Your task to perform on an android device: Search for sushi restaurants on Maps Image 0: 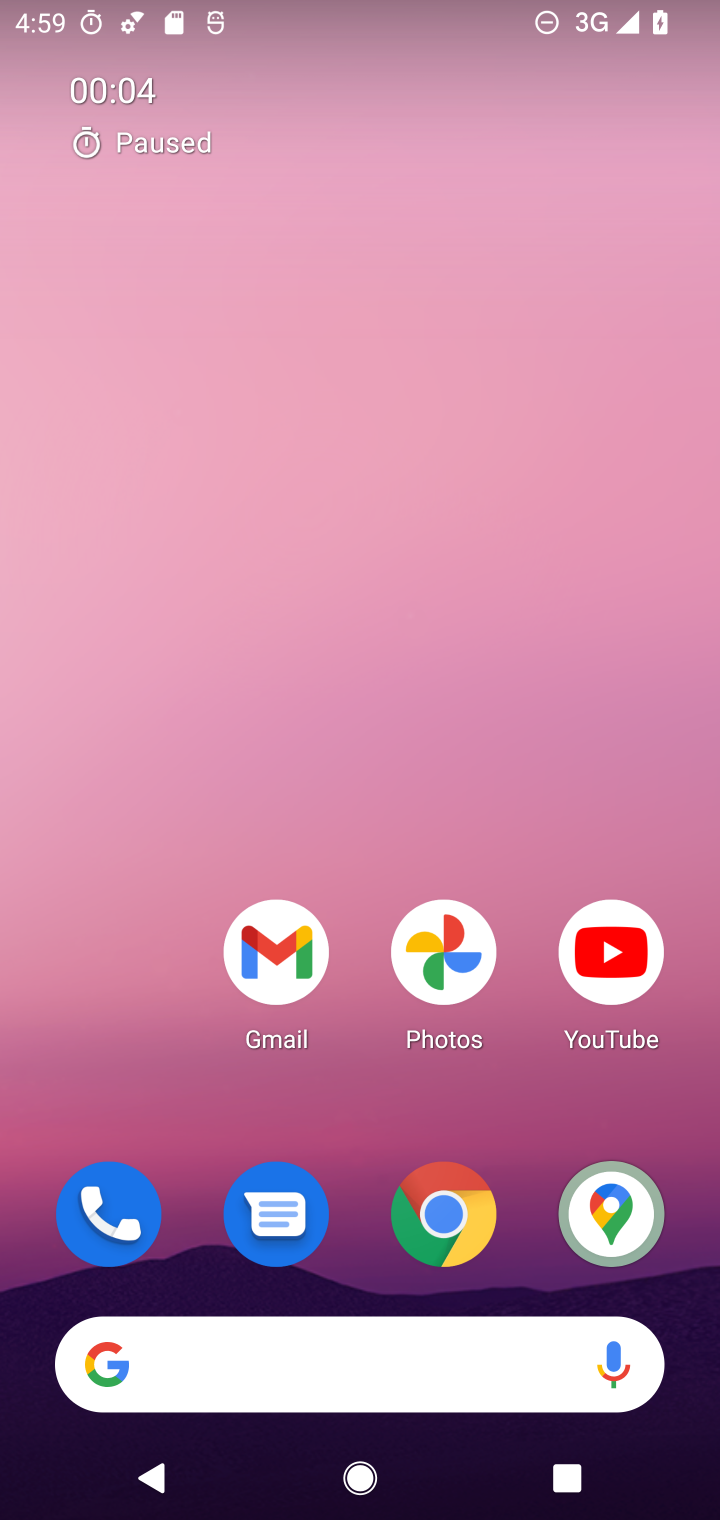
Step 0: click (618, 1218)
Your task to perform on an android device: Search for sushi restaurants on Maps Image 1: 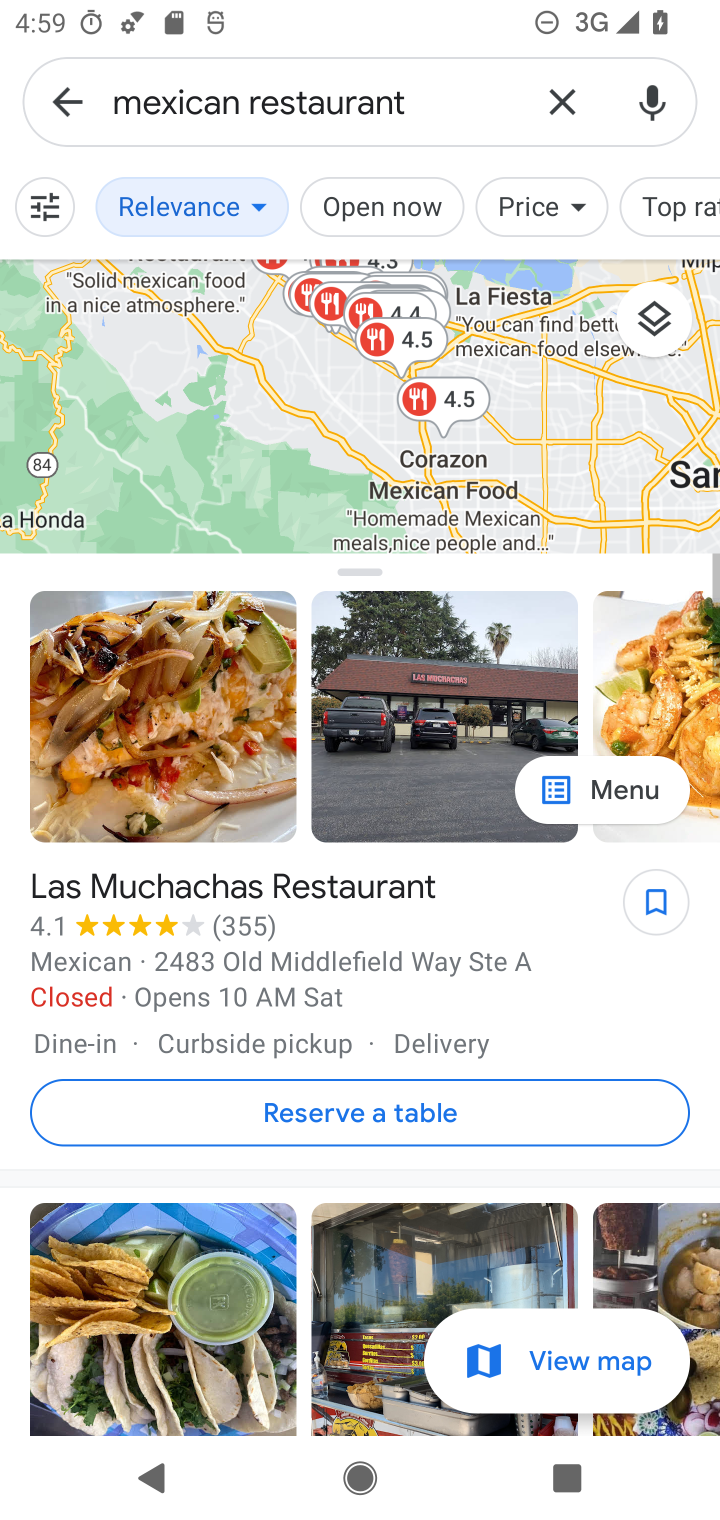
Step 1: click (56, 102)
Your task to perform on an android device: Search for sushi restaurants on Maps Image 2: 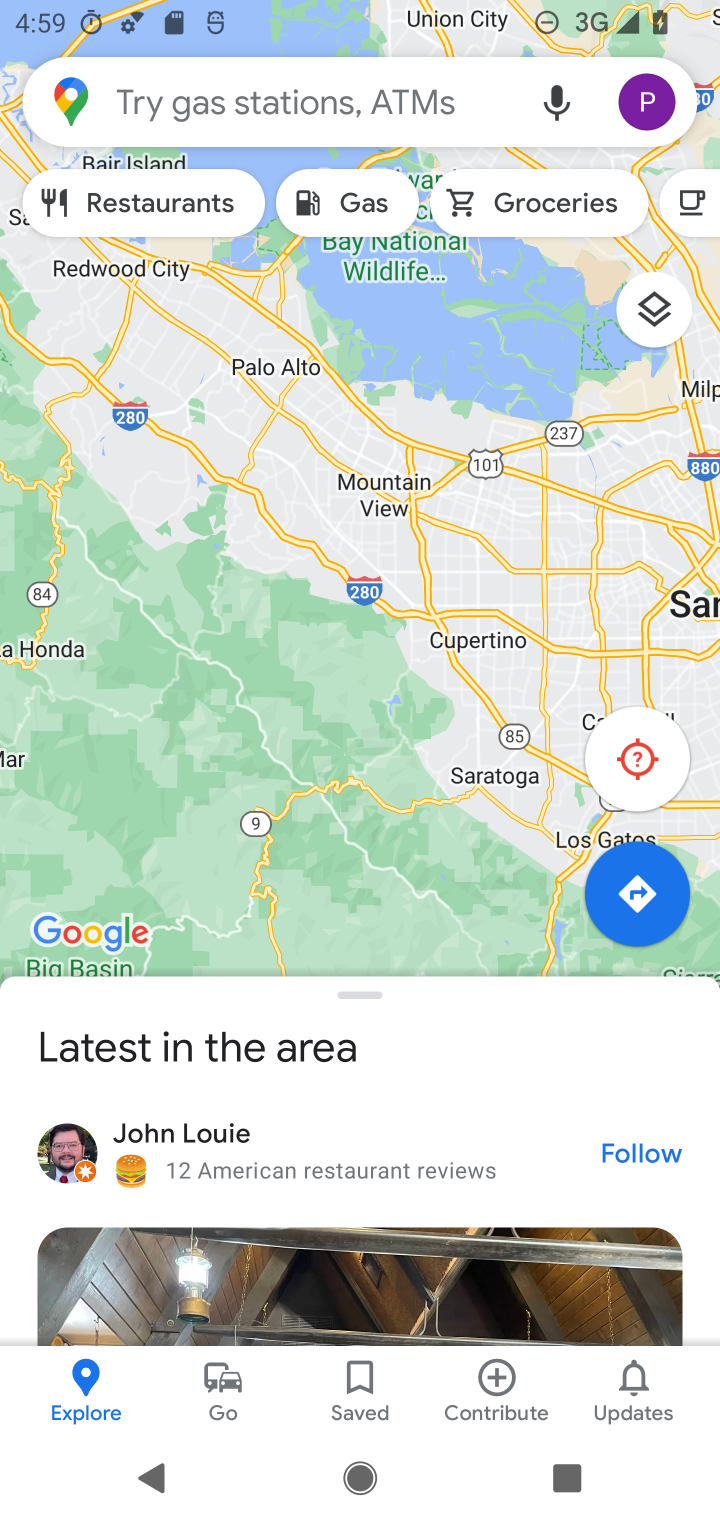
Step 2: click (254, 88)
Your task to perform on an android device: Search for sushi restaurants on Maps Image 3: 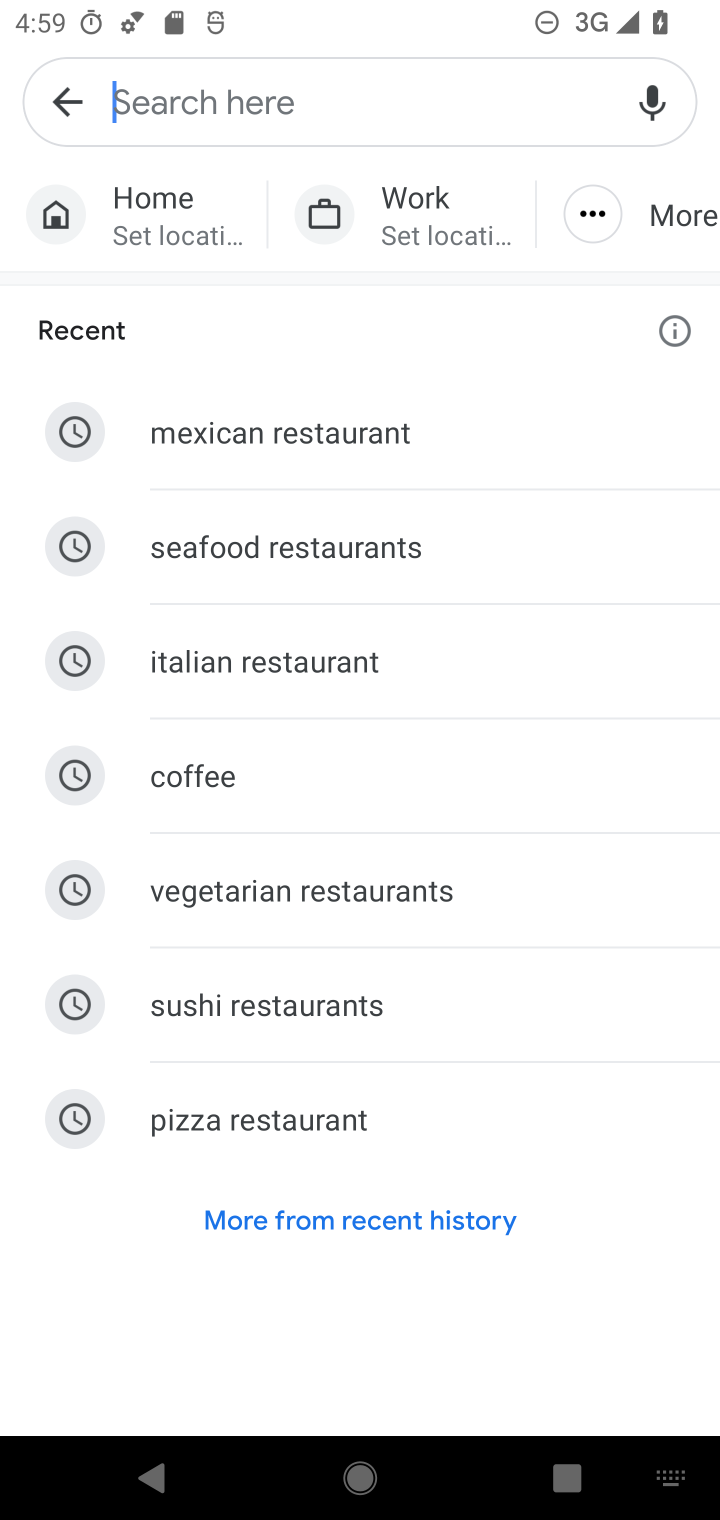
Step 3: type "sushi restaurants"
Your task to perform on an android device: Search for sushi restaurants on Maps Image 4: 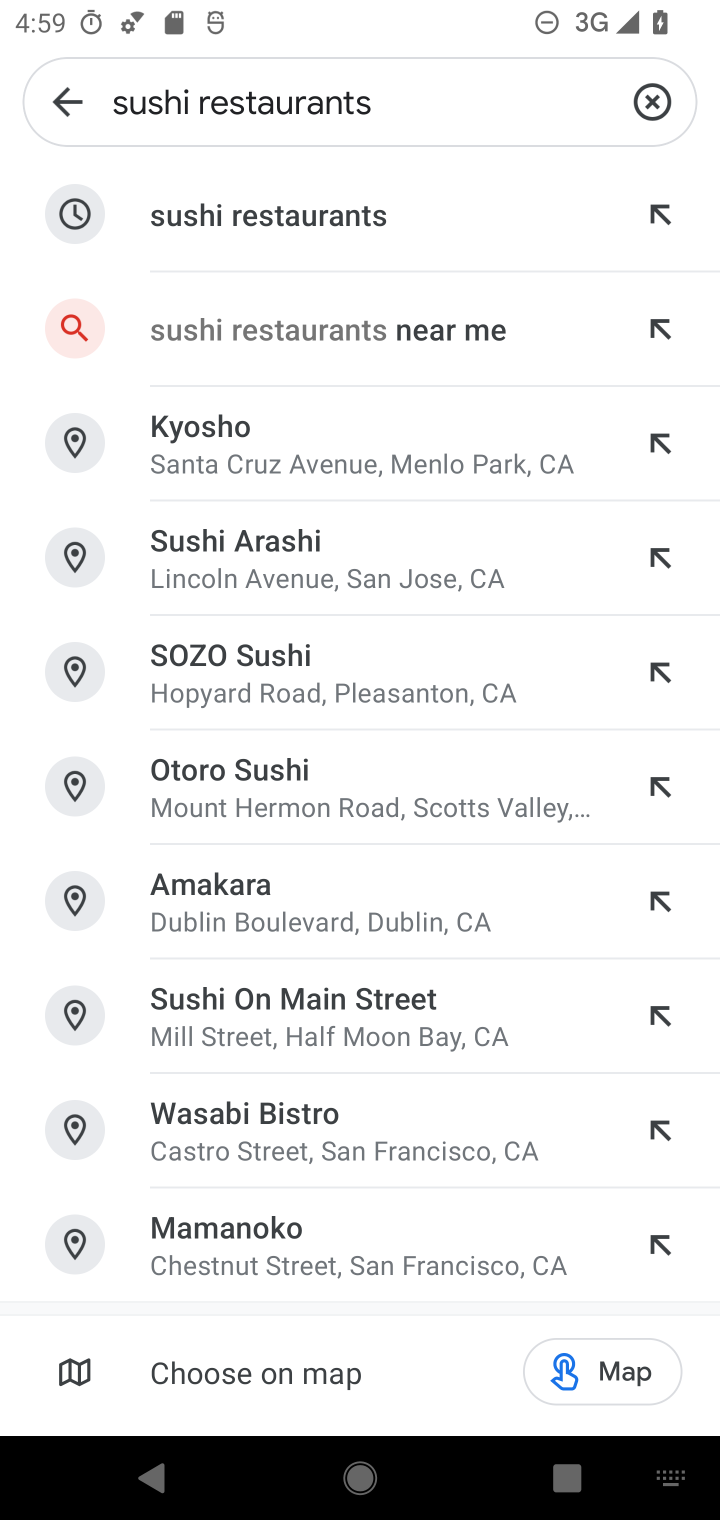
Step 4: click (315, 226)
Your task to perform on an android device: Search for sushi restaurants on Maps Image 5: 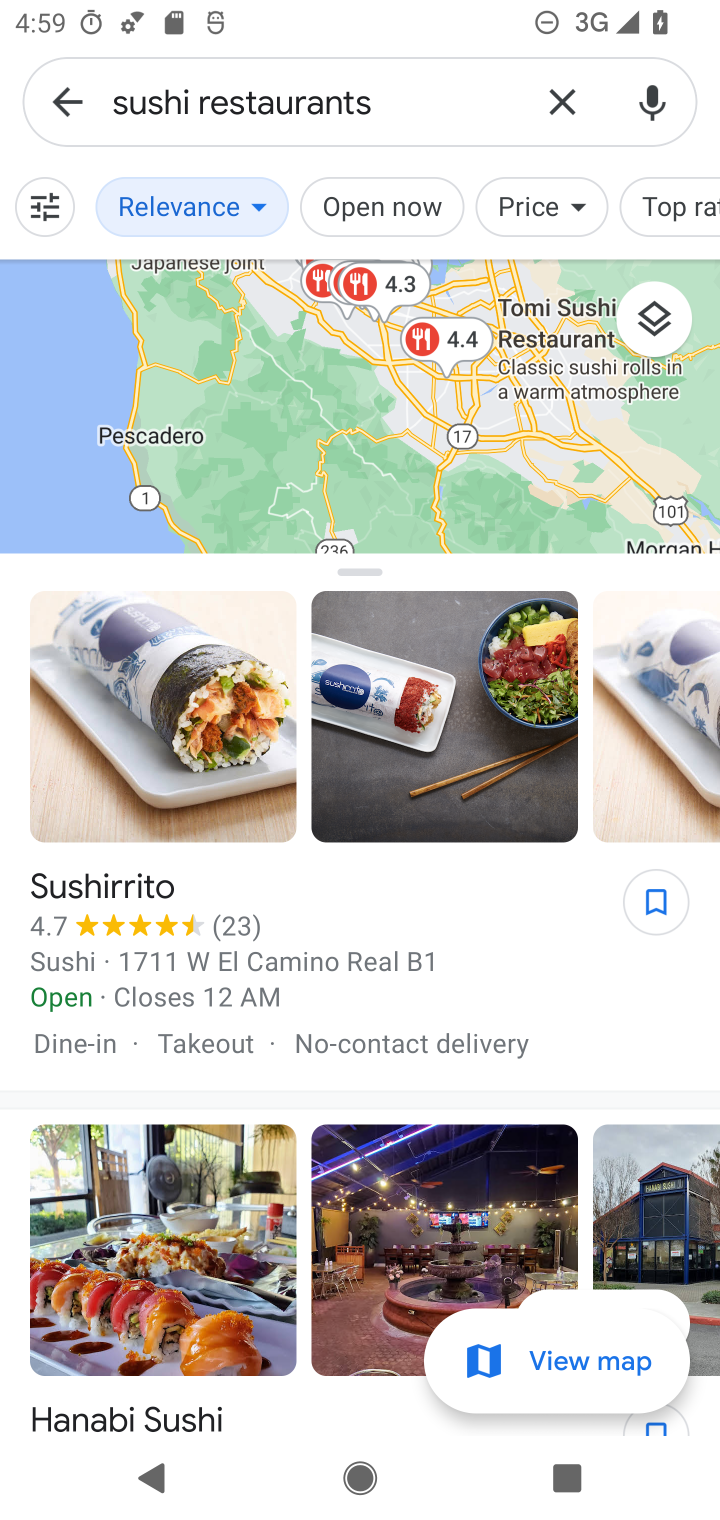
Step 5: task complete